Your task to perform on an android device: check out phone information Image 0: 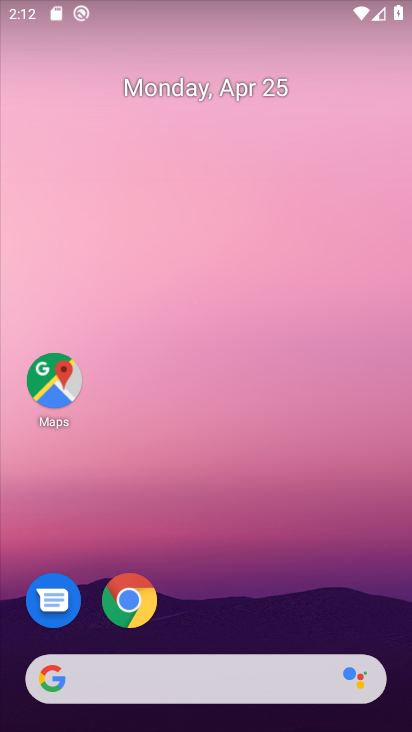
Step 0: drag from (172, 648) to (290, 118)
Your task to perform on an android device: check out phone information Image 1: 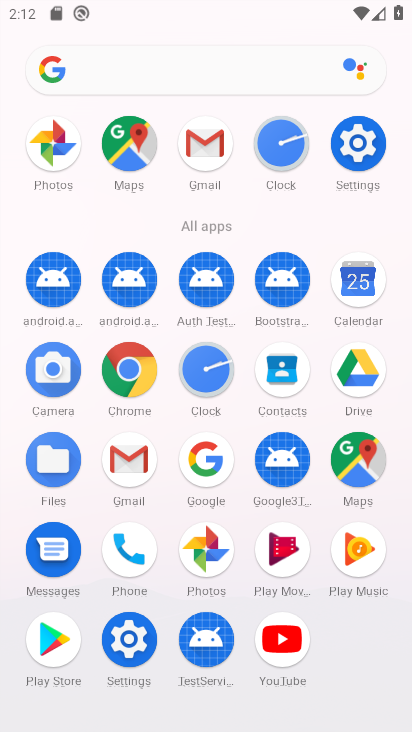
Step 1: click (116, 648)
Your task to perform on an android device: check out phone information Image 2: 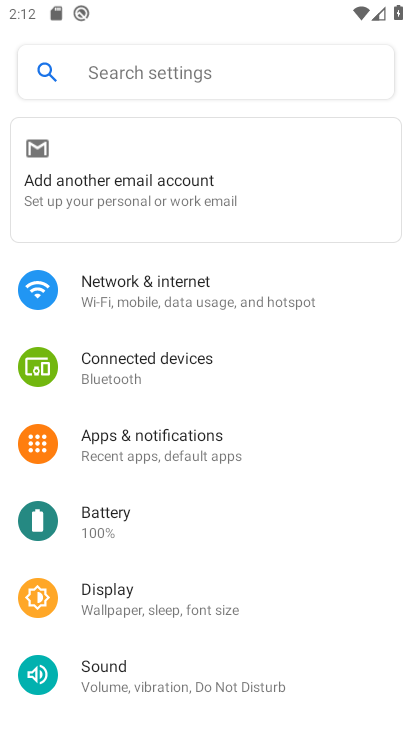
Step 2: drag from (203, 690) to (346, 126)
Your task to perform on an android device: check out phone information Image 3: 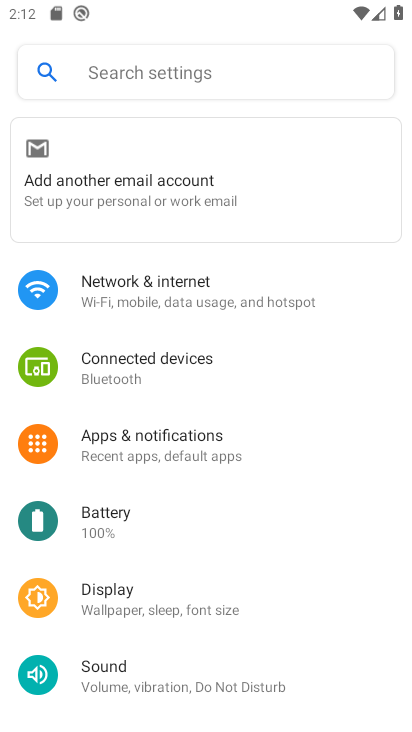
Step 3: drag from (185, 641) to (300, 220)
Your task to perform on an android device: check out phone information Image 4: 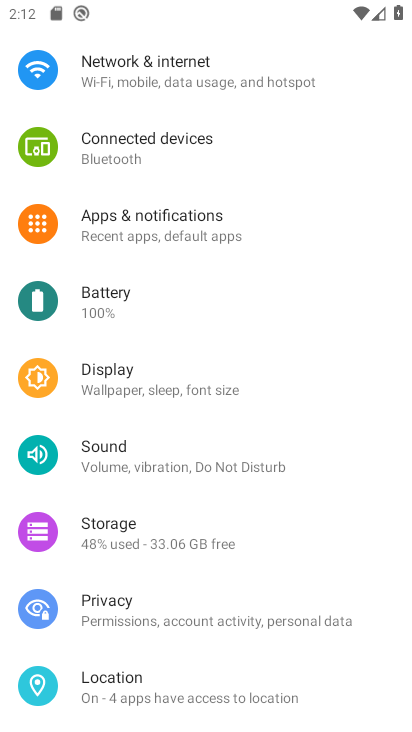
Step 4: drag from (256, 611) to (298, 249)
Your task to perform on an android device: check out phone information Image 5: 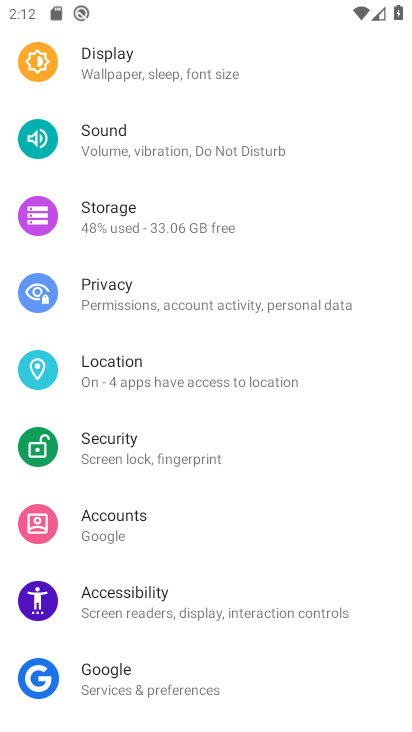
Step 5: drag from (228, 663) to (313, 260)
Your task to perform on an android device: check out phone information Image 6: 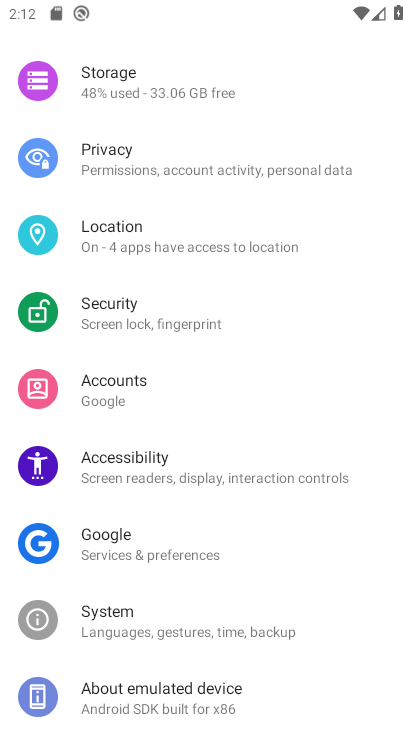
Step 6: click (194, 697)
Your task to perform on an android device: check out phone information Image 7: 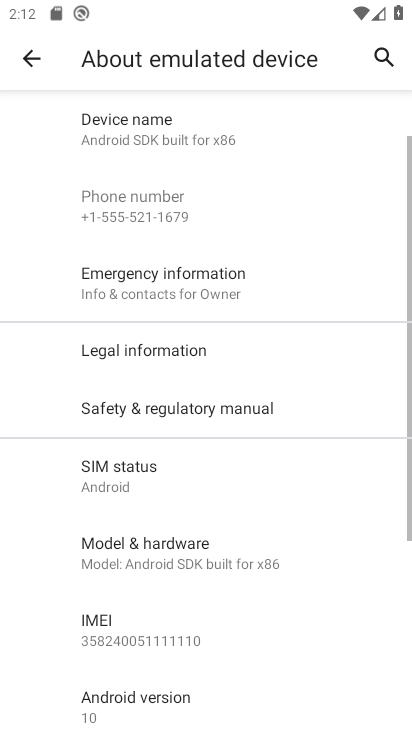
Step 7: task complete